Your task to perform on an android device: turn off priority inbox in the gmail app Image 0: 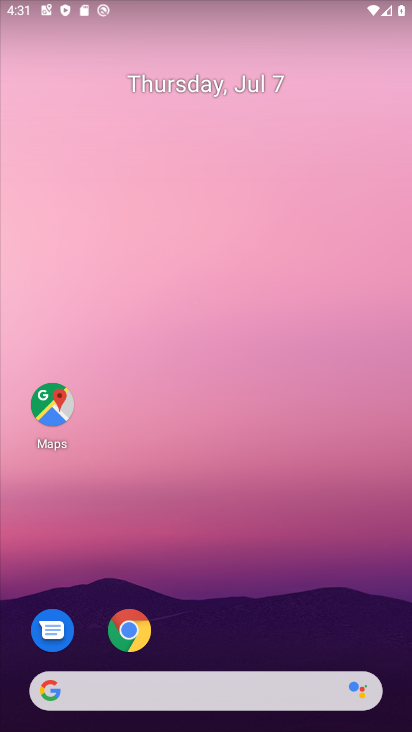
Step 0: drag from (256, 633) to (216, 159)
Your task to perform on an android device: turn off priority inbox in the gmail app Image 1: 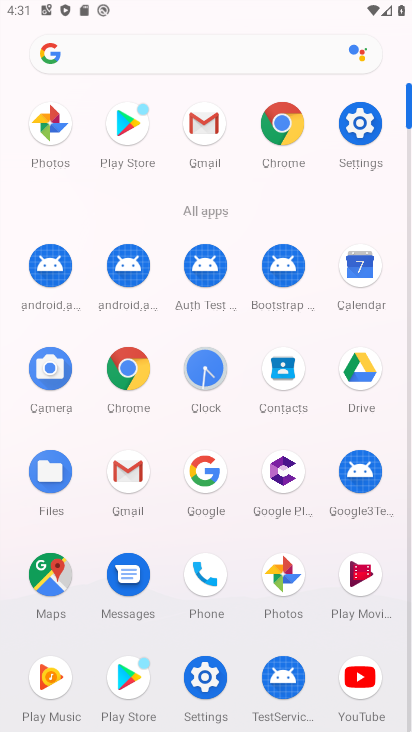
Step 1: click (135, 476)
Your task to perform on an android device: turn off priority inbox in the gmail app Image 2: 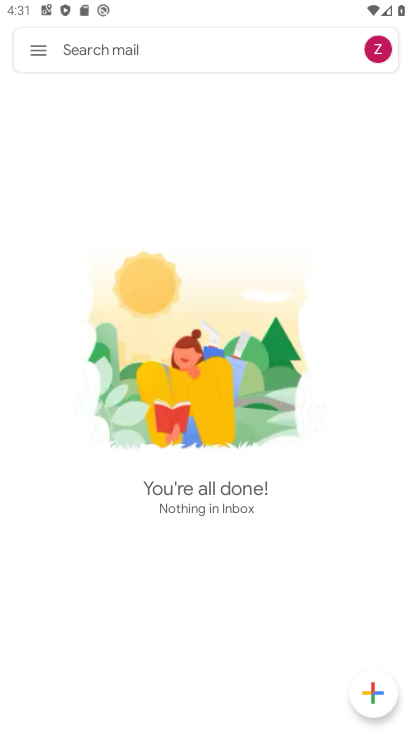
Step 2: click (46, 57)
Your task to perform on an android device: turn off priority inbox in the gmail app Image 3: 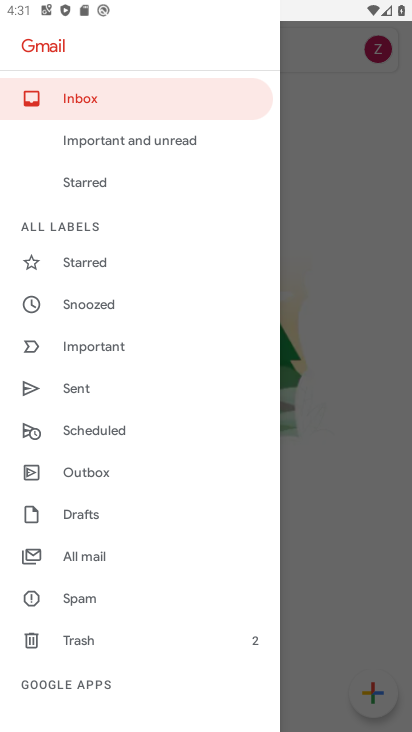
Step 3: drag from (73, 634) to (173, 149)
Your task to perform on an android device: turn off priority inbox in the gmail app Image 4: 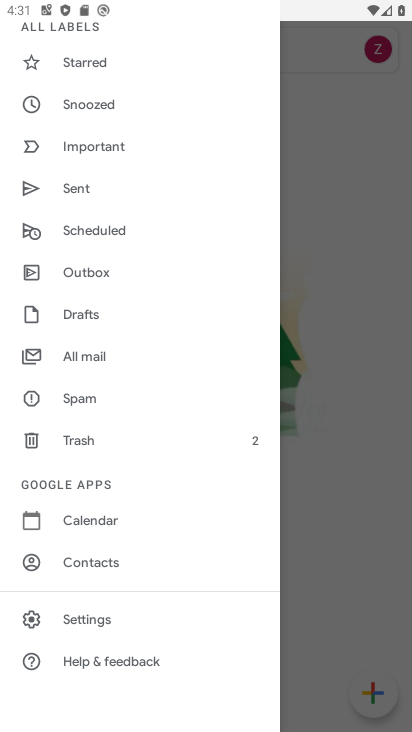
Step 4: click (116, 614)
Your task to perform on an android device: turn off priority inbox in the gmail app Image 5: 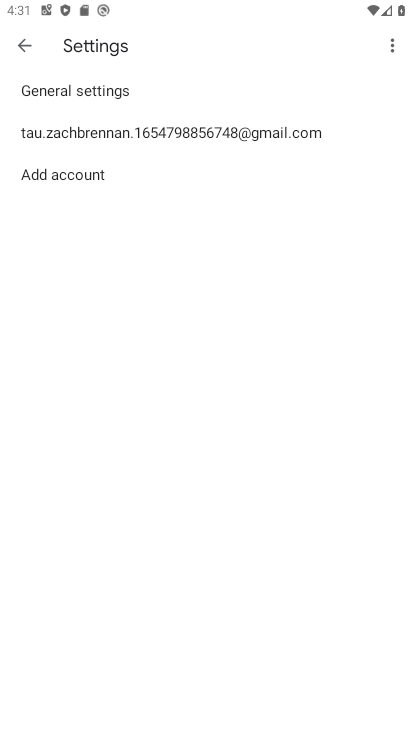
Step 5: click (175, 119)
Your task to perform on an android device: turn off priority inbox in the gmail app Image 6: 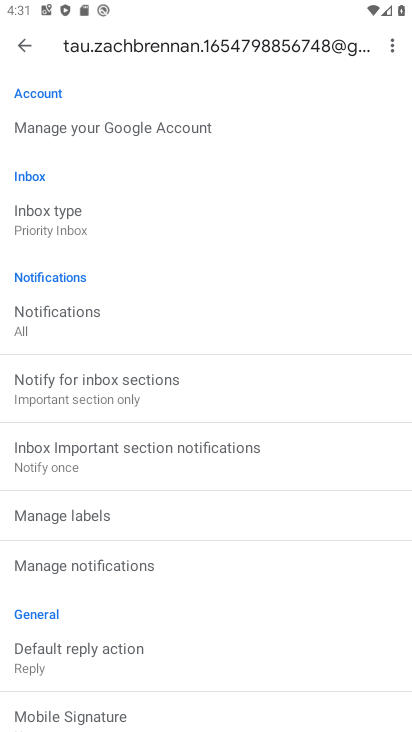
Step 6: click (83, 224)
Your task to perform on an android device: turn off priority inbox in the gmail app Image 7: 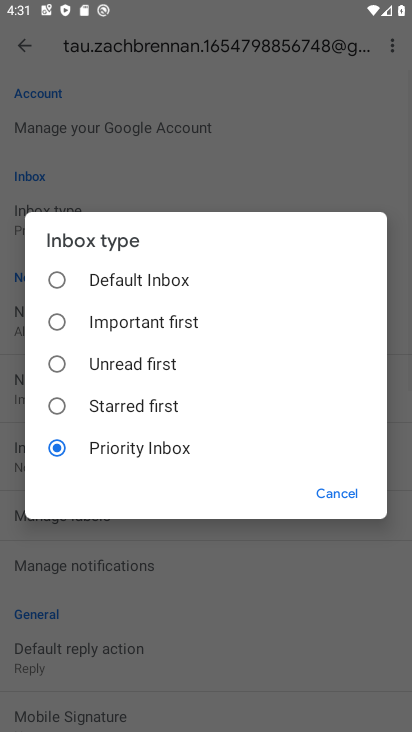
Step 7: click (148, 275)
Your task to perform on an android device: turn off priority inbox in the gmail app Image 8: 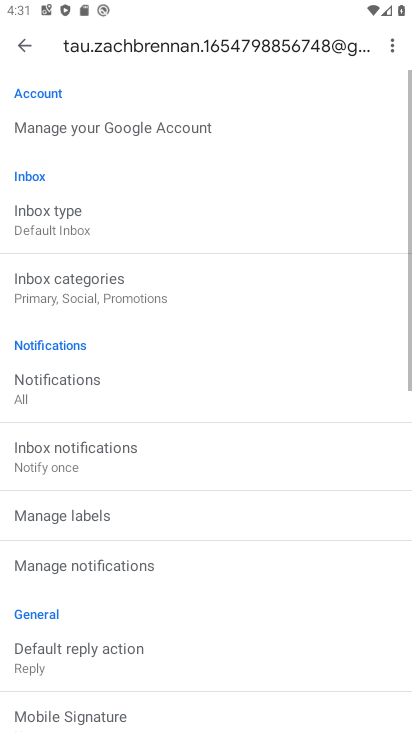
Step 8: task complete